Your task to perform on an android device: Go to notification settings Image 0: 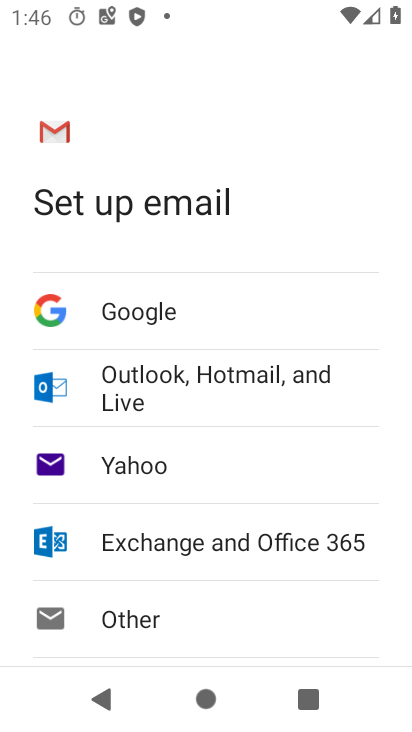
Step 0: press home button
Your task to perform on an android device: Go to notification settings Image 1: 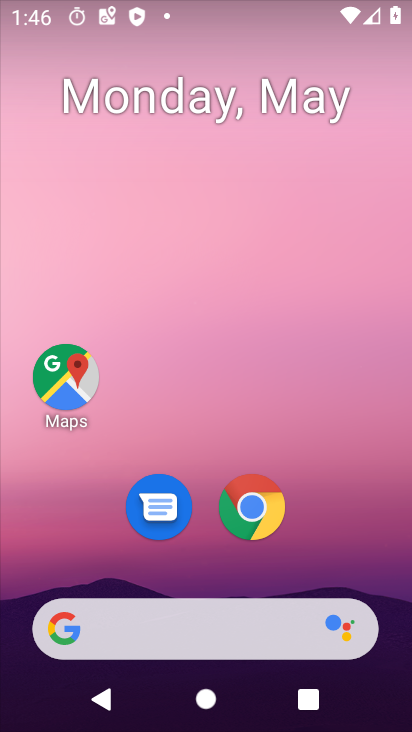
Step 1: drag from (349, 550) to (299, 109)
Your task to perform on an android device: Go to notification settings Image 2: 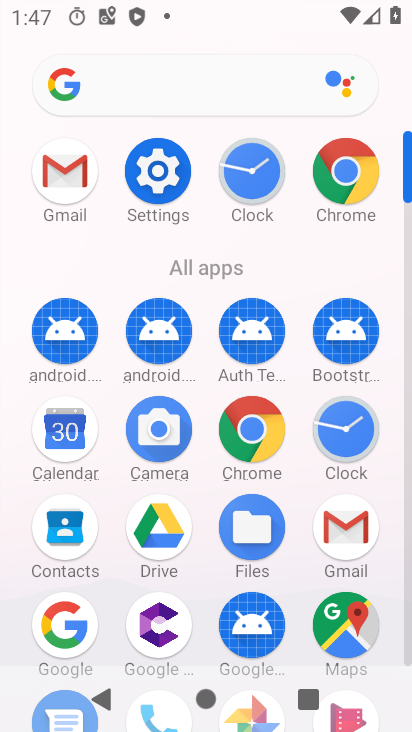
Step 2: click (157, 166)
Your task to perform on an android device: Go to notification settings Image 3: 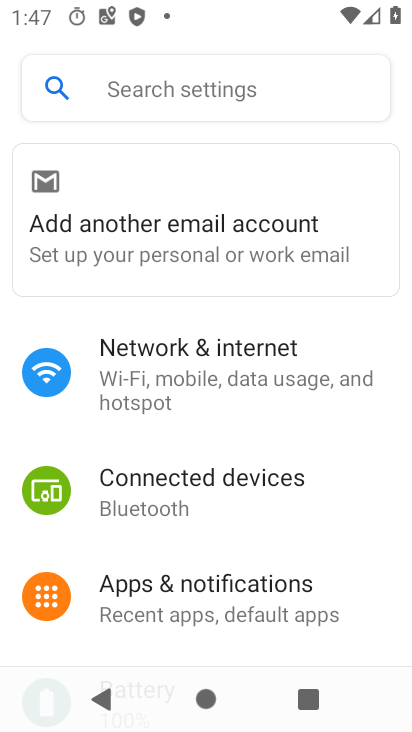
Step 3: drag from (329, 603) to (330, 261)
Your task to perform on an android device: Go to notification settings Image 4: 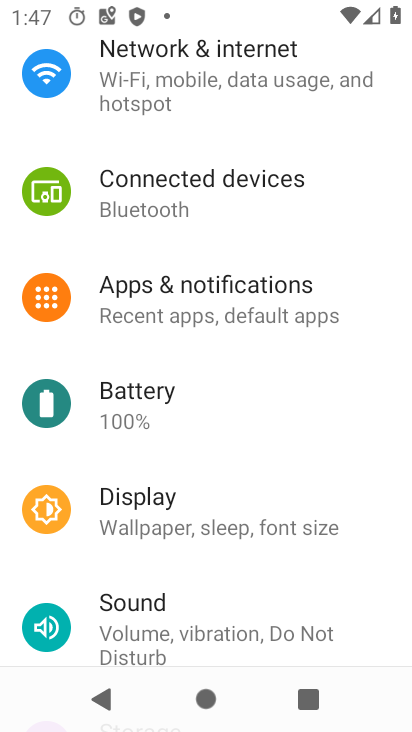
Step 4: click (245, 298)
Your task to perform on an android device: Go to notification settings Image 5: 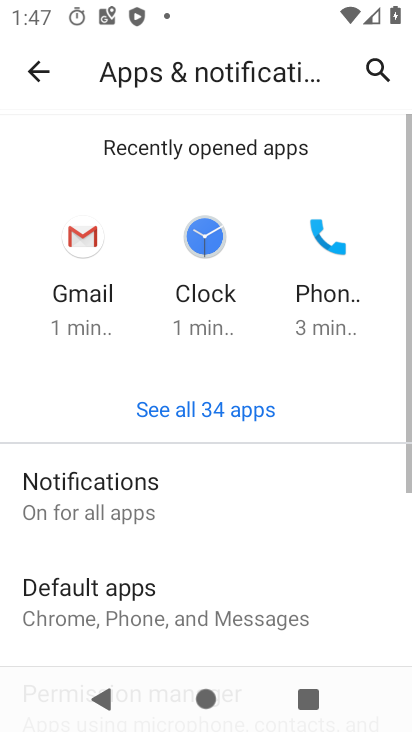
Step 5: click (145, 491)
Your task to perform on an android device: Go to notification settings Image 6: 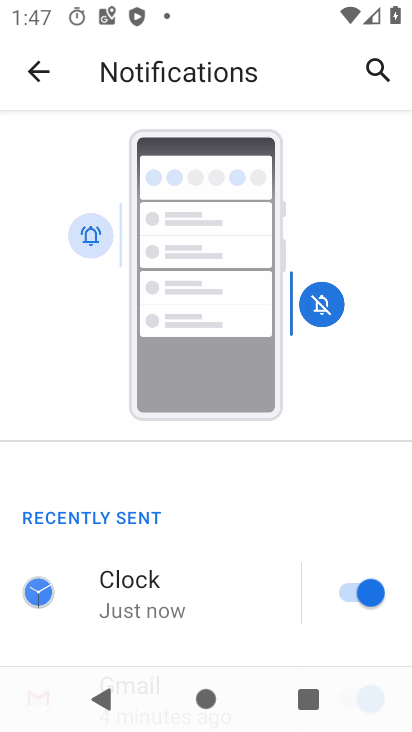
Step 6: task complete